Your task to perform on an android device: toggle sleep mode Image 0: 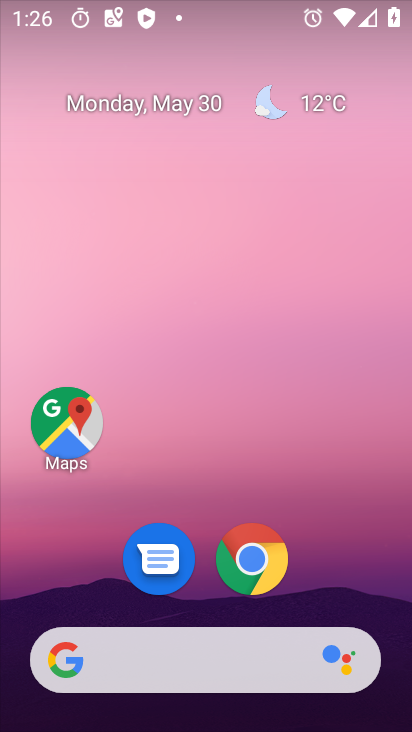
Step 0: drag from (226, 546) to (241, 70)
Your task to perform on an android device: toggle sleep mode Image 1: 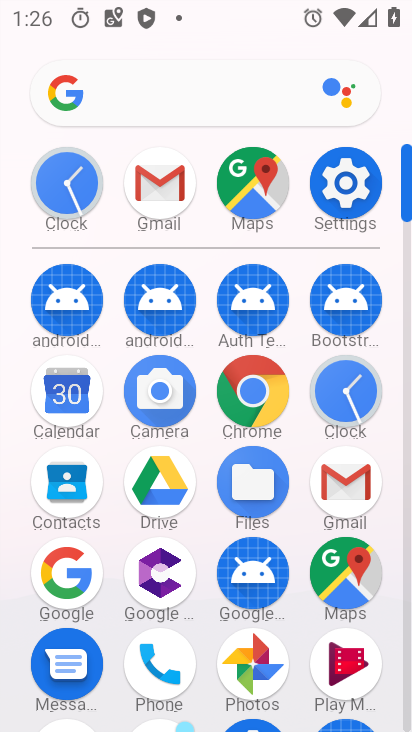
Step 1: click (341, 172)
Your task to perform on an android device: toggle sleep mode Image 2: 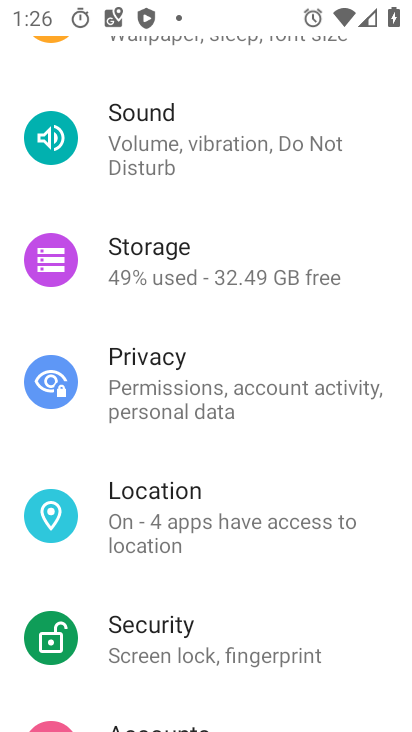
Step 2: drag from (240, 159) to (151, 726)
Your task to perform on an android device: toggle sleep mode Image 3: 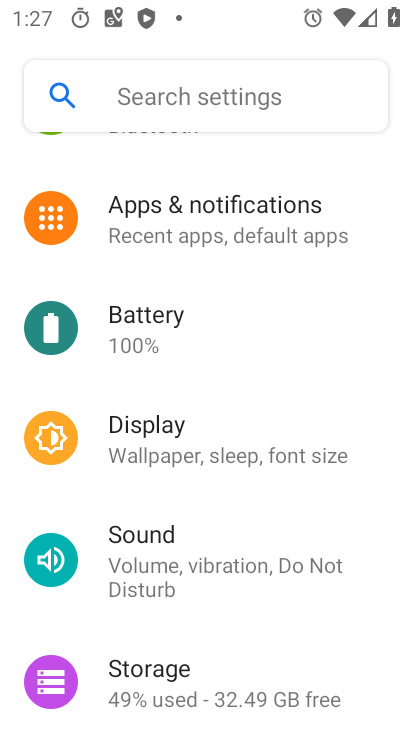
Step 3: click (214, 95)
Your task to perform on an android device: toggle sleep mode Image 4: 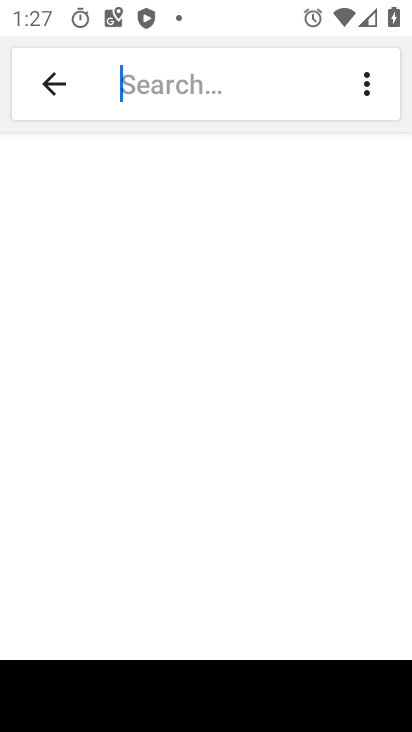
Step 4: type "sleep mode"
Your task to perform on an android device: toggle sleep mode Image 5: 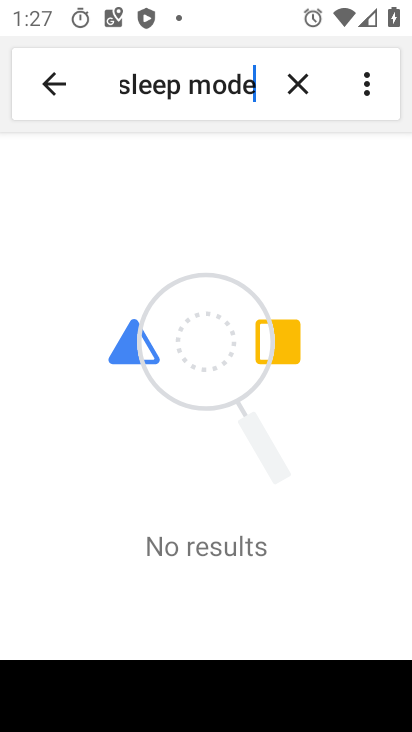
Step 5: task complete